Your task to perform on an android device: check out phone information Image 0: 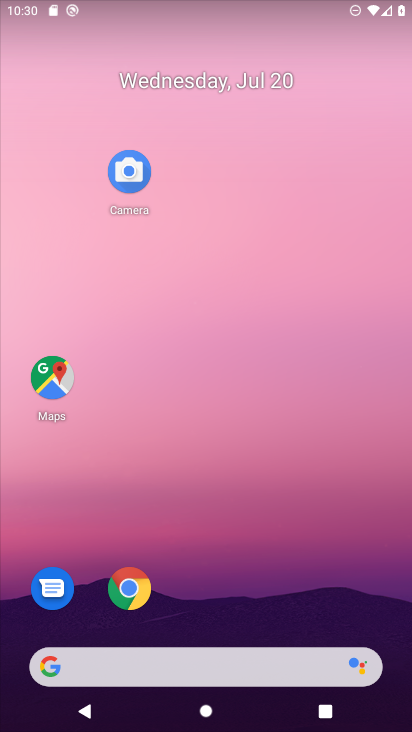
Step 0: press home button
Your task to perform on an android device: check out phone information Image 1: 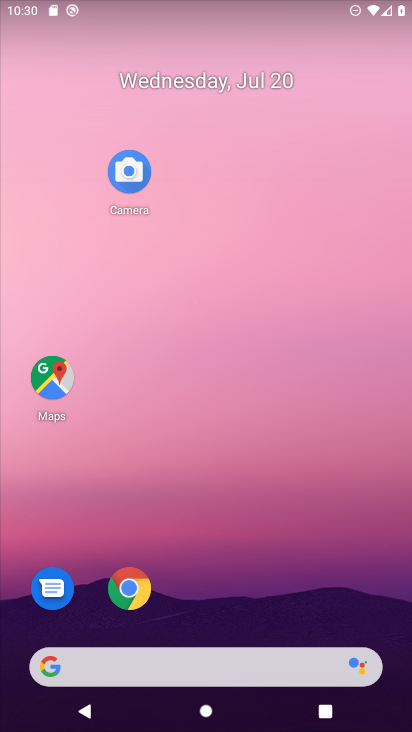
Step 1: drag from (245, 565) to (232, 48)
Your task to perform on an android device: check out phone information Image 2: 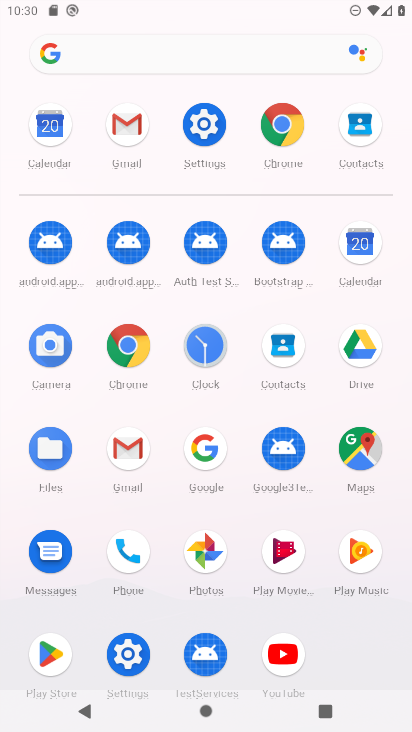
Step 2: click (203, 115)
Your task to perform on an android device: check out phone information Image 3: 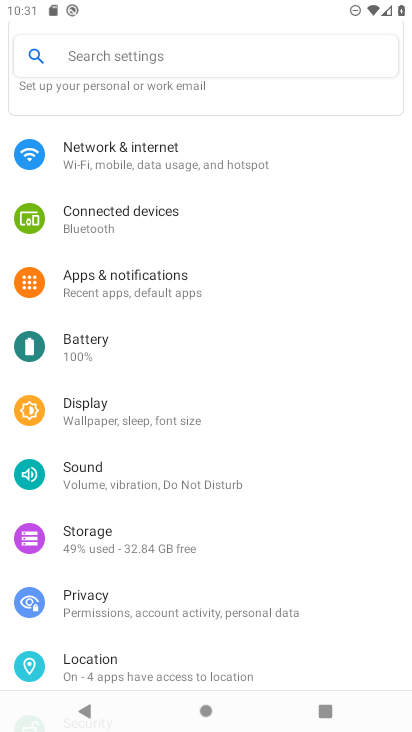
Step 3: drag from (210, 664) to (222, 131)
Your task to perform on an android device: check out phone information Image 4: 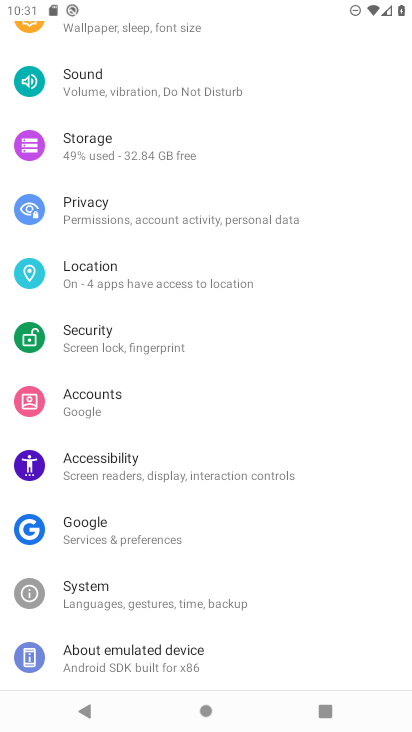
Step 4: click (161, 655)
Your task to perform on an android device: check out phone information Image 5: 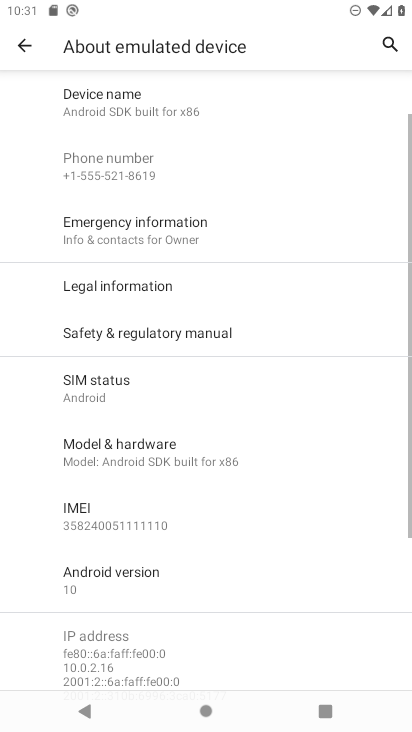
Step 5: task complete